Your task to perform on an android device: add a contact Image 0: 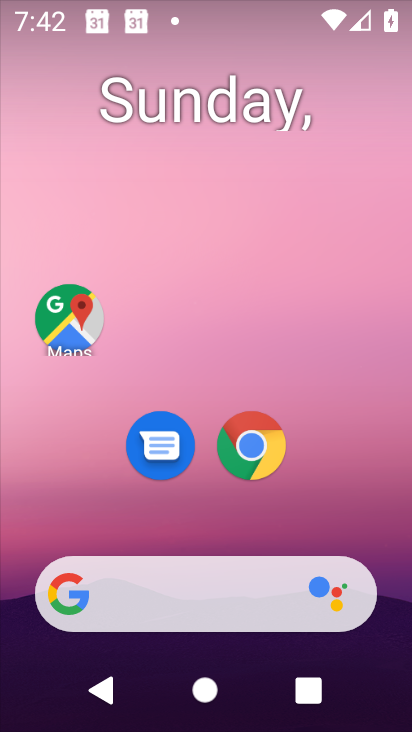
Step 0: drag from (348, 398) to (301, 16)
Your task to perform on an android device: add a contact Image 1: 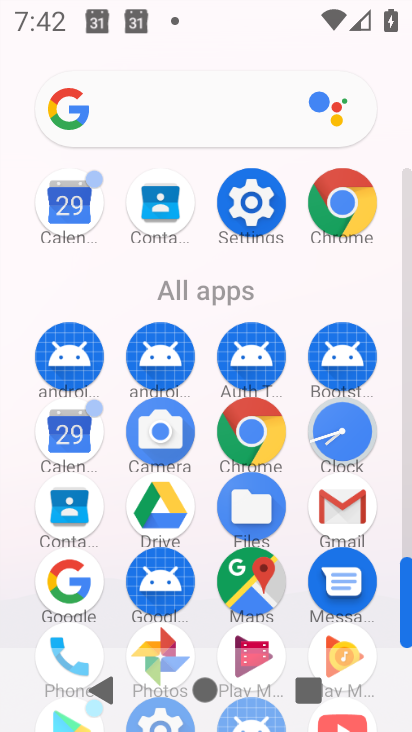
Step 1: drag from (6, 569) to (5, 238)
Your task to perform on an android device: add a contact Image 2: 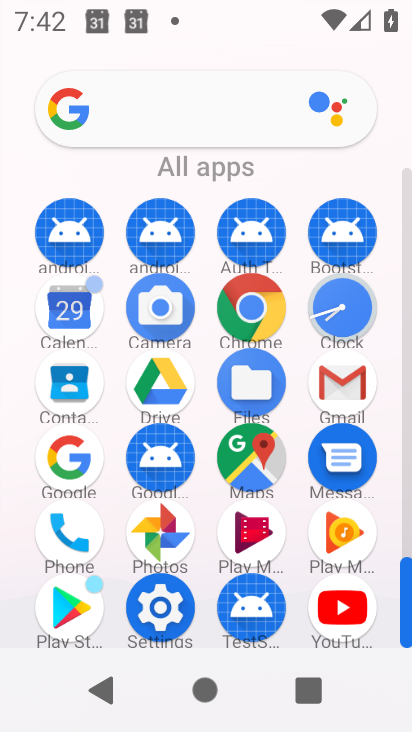
Step 2: click (67, 377)
Your task to perform on an android device: add a contact Image 3: 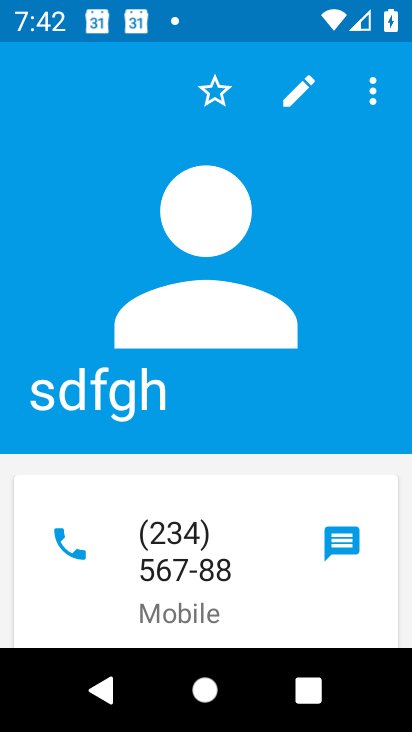
Step 3: press back button
Your task to perform on an android device: add a contact Image 4: 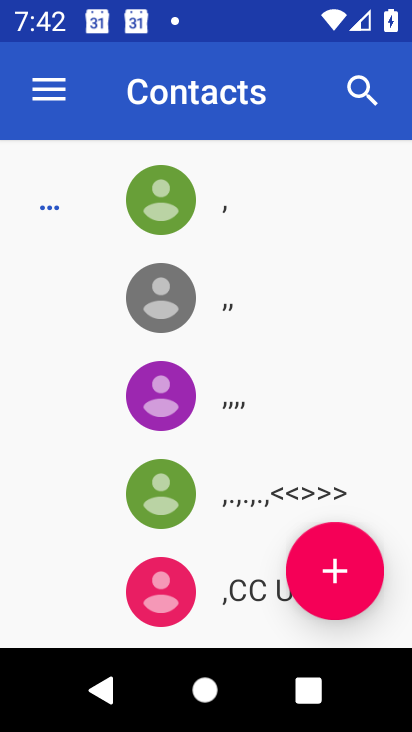
Step 4: click (341, 584)
Your task to perform on an android device: add a contact Image 5: 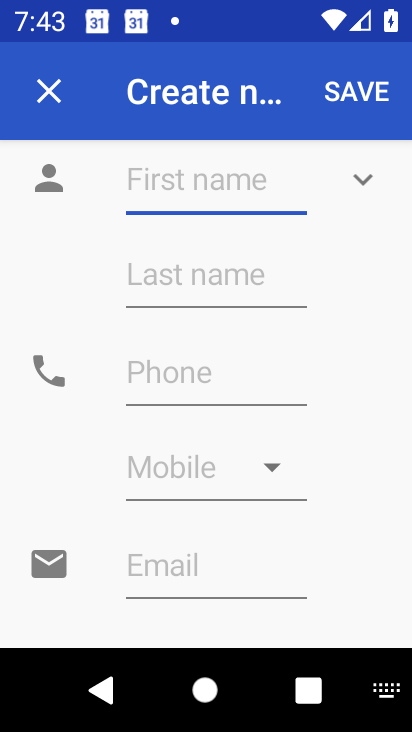
Step 5: type "Dfghj"
Your task to perform on an android device: add a contact Image 6: 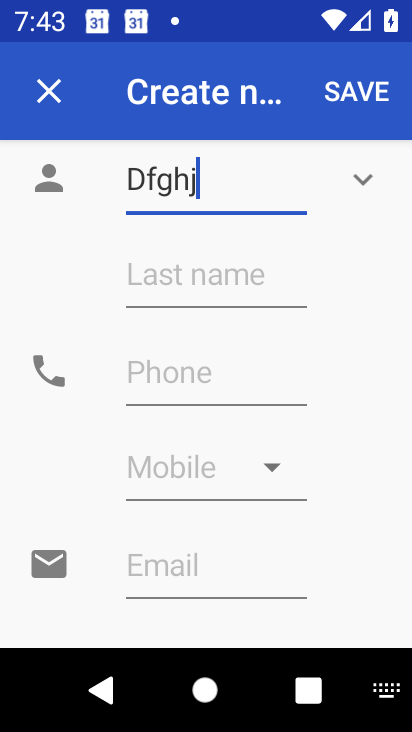
Step 6: type ""
Your task to perform on an android device: add a contact Image 7: 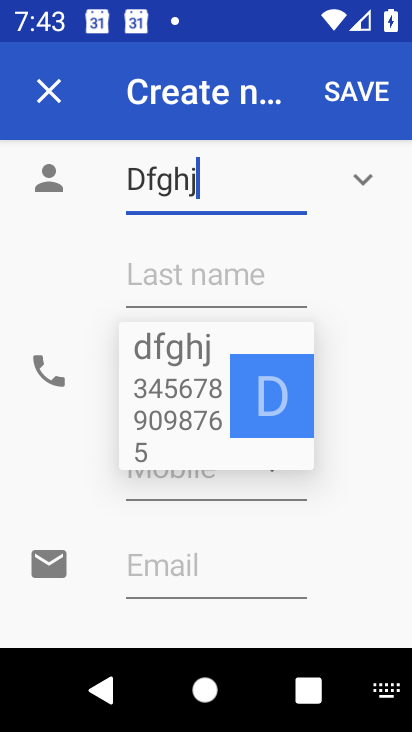
Step 7: click (175, 373)
Your task to perform on an android device: add a contact Image 8: 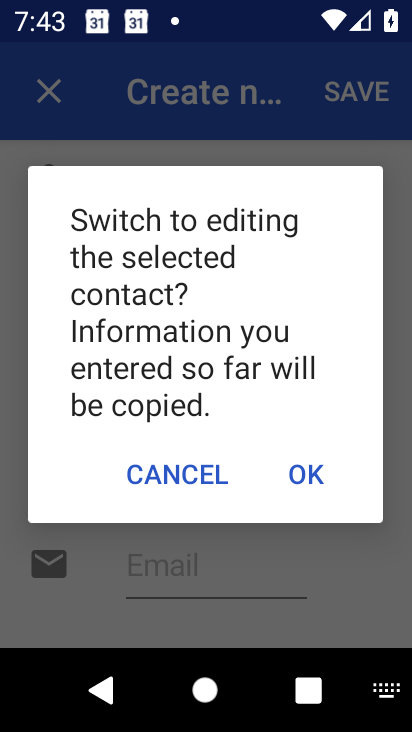
Step 8: click (302, 474)
Your task to perform on an android device: add a contact Image 9: 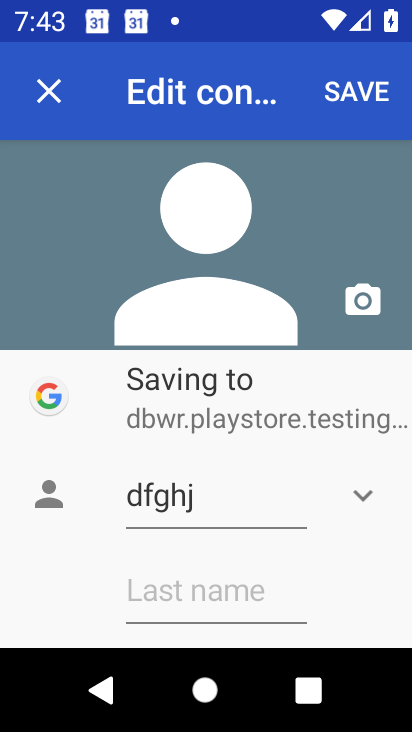
Step 9: click (350, 85)
Your task to perform on an android device: add a contact Image 10: 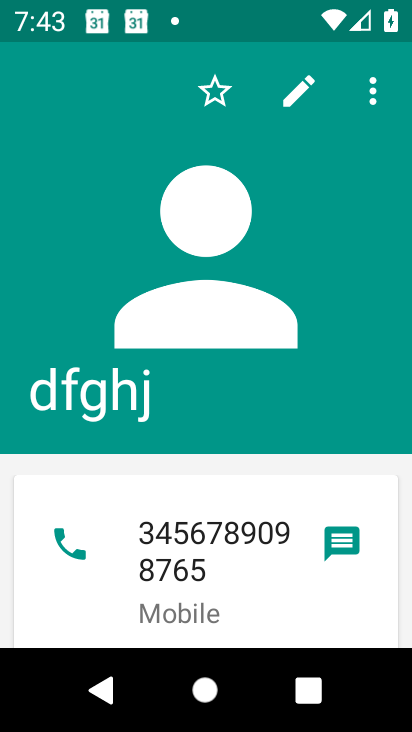
Step 10: task complete